Your task to perform on an android device: Clear the cart on ebay. Search for "logitech g910" on ebay, select the first entry, add it to the cart, then select checkout. Image 0: 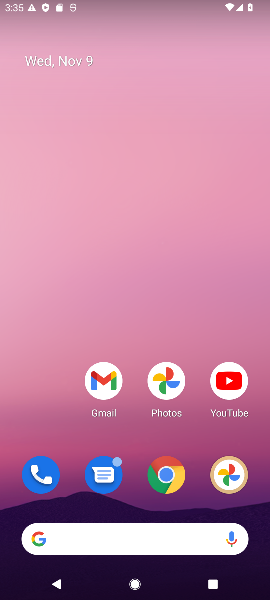
Step 0: drag from (136, 508) to (155, 79)
Your task to perform on an android device: Clear the cart on ebay. Search for "logitech g910" on ebay, select the first entry, add it to the cart, then select checkout. Image 1: 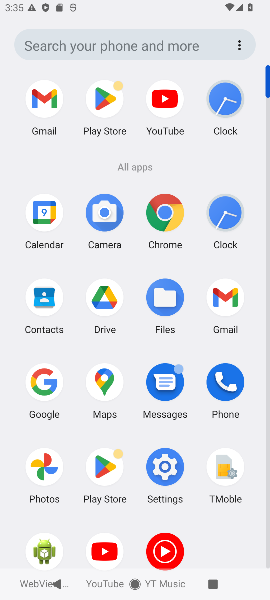
Step 1: click (173, 211)
Your task to perform on an android device: Clear the cart on ebay. Search for "logitech g910" on ebay, select the first entry, add it to the cart, then select checkout. Image 2: 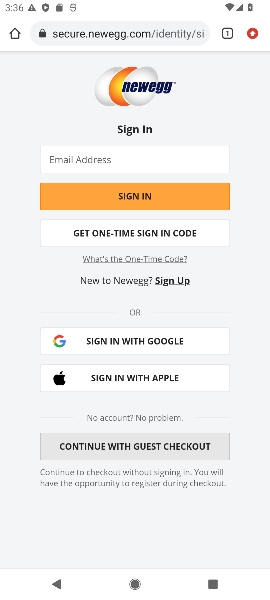
Step 2: click (140, 38)
Your task to perform on an android device: Clear the cart on ebay. Search for "logitech g910" on ebay, select the first entry, add it to the cart, then select checkout. Image 3: 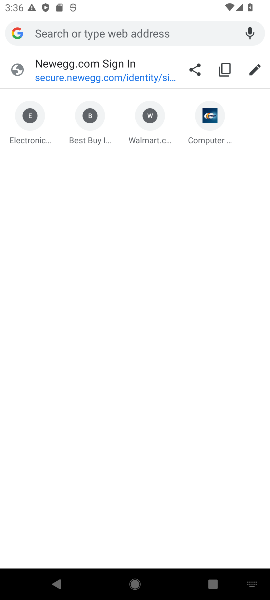
Step 3: type "ebay"
Your task to perform on an android device: Clear the cart on ebay. Search for "logitech g910" on ebay, select the first entry, add it to the cart, then select checkout. Image 4: 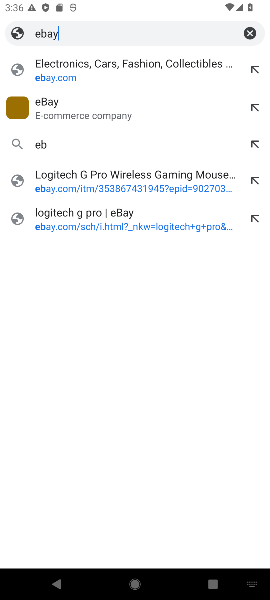
Step 4: press enter
Your task to perform on an android device: Clear the cart on ebay. Search for "logitech g910" on ebay, select the first entry, add it to the cart, then select checkout. Image 5: 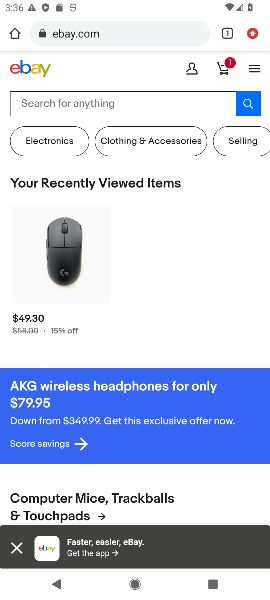
Step 5: click (81, 101)
Your task to perform on an android device: Clear the cart on ebay. Search for "logitech g910" on ebay, select the first entry, add it to the cart, then select checkout. Image 6: 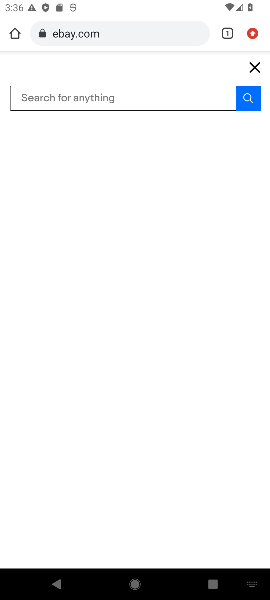
Step 6: type "logitech g910"
Your task to perform on an android device: Clear the cart on ebay. Search for "logitech g910" on ebay, select the first entry, add it to the cart, then select checkout. Image 7: 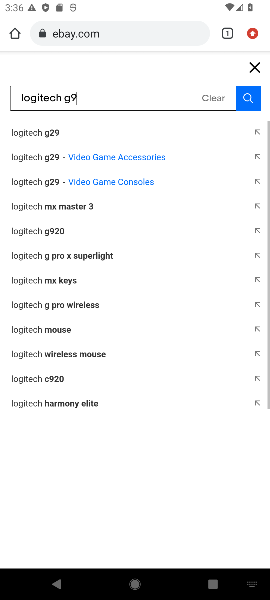
Step 7: press enter
Your task to perform on an android device: Clear the cart on ebay. Search for "logitech g910" on ebay, select the first entry, add it to the cart, then select checkout. Image 8: 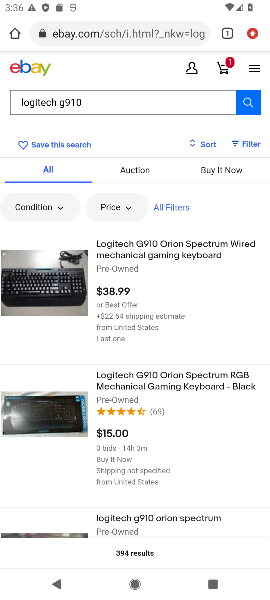
Step 8: click (123, 253)
Your task to perform on an android device: Clear the cart on ebay. Search for "logitech g910" on ebay, select the first entry, add it to the cart, then select checkout. Image 9: 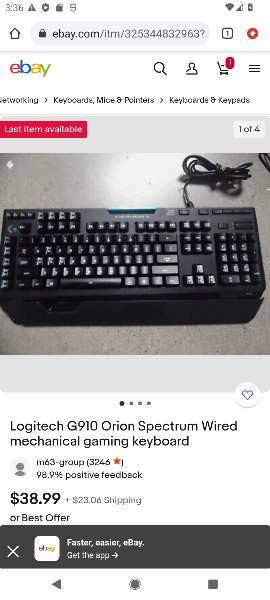
Step 9: drag from (159, 502) to (168, 262)
Your task to perform on an android device: Clear the cart on ebay. Search for "logitech g910" on ebay, select the first entry, add it to the cart, then select checkout. Image 10: 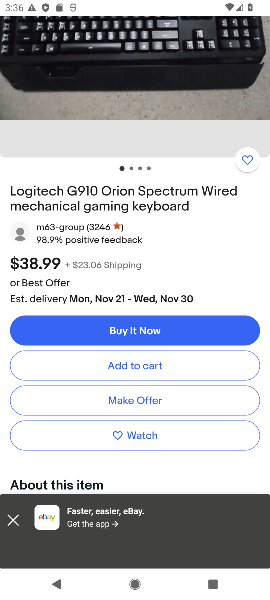
Step 10: click (135, 367)
Your task to perform on an android device: Clear the cart on ebay. Search for "logitech g910" on ebay, select the first entry, add it to the cart, then select checkout. Image 11: 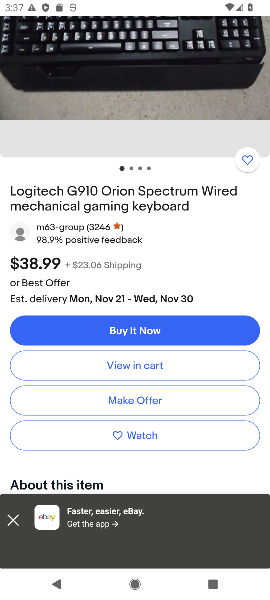
Step 11: click (135, 367)
Your task to perform on an android device: Clear the cart on ebay. Search for "logitech g910" on ebay, select the first entry, add it to the cart, then select checkout. Image 12: 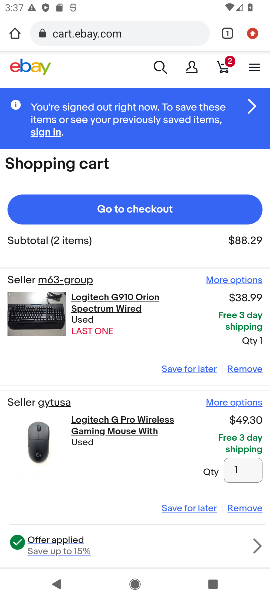
Step 12: click (159, 208)
Your task to perform on an android device: Clear the cart on ebay. Search for "logitech g910" on ebay, select the first entry, add it to the cart, then select checkout. Image 13: 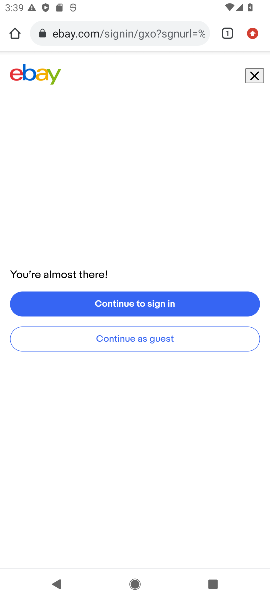
Step 13: task complete